Your task to perform on an android device: turn off location Image 0: 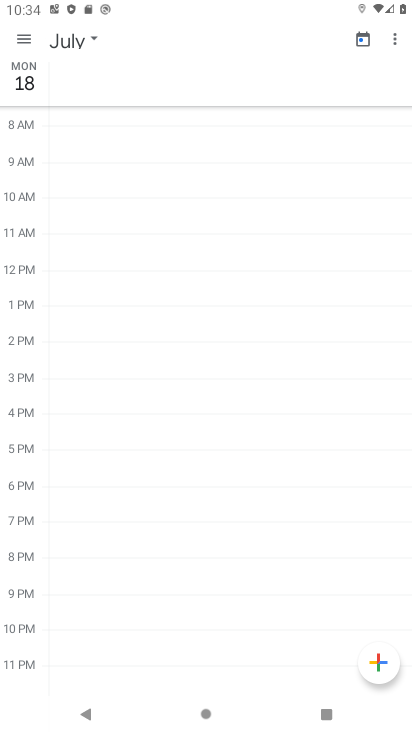
Step 0: press home button
Your task to perform on an android device: turn off location Image 1: 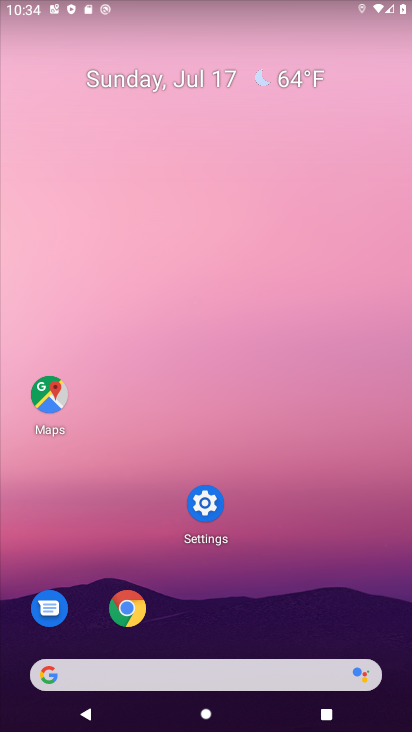
Step 1: click (209, 503)
Your task to perform on an android device: turn off location Image 2: 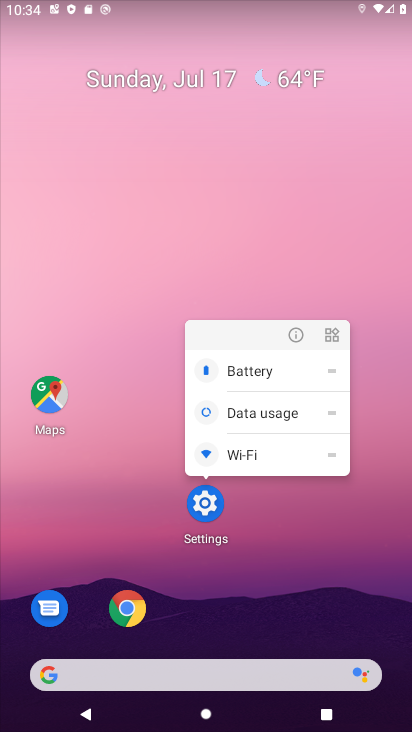
Step 2: click (215, 491)
Your task to perform on an android device: turn off location Image 3: 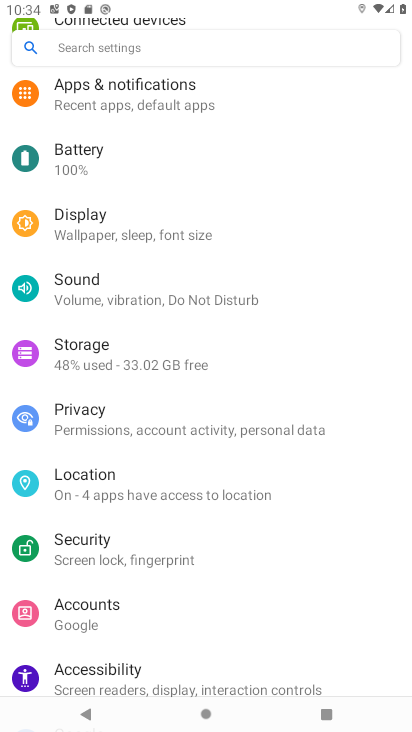
Step 3: click (133, 484)
Your task to perform on an android device: turn off location Image 4: 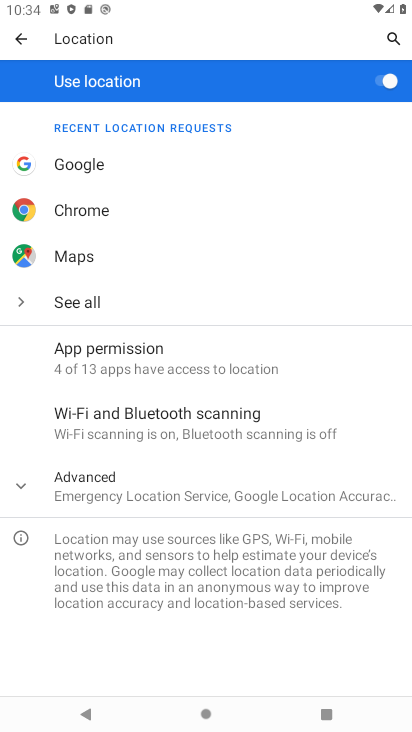
Step 4: click (378, 70)
Your task to perform on an android device: turn off location Image 5: 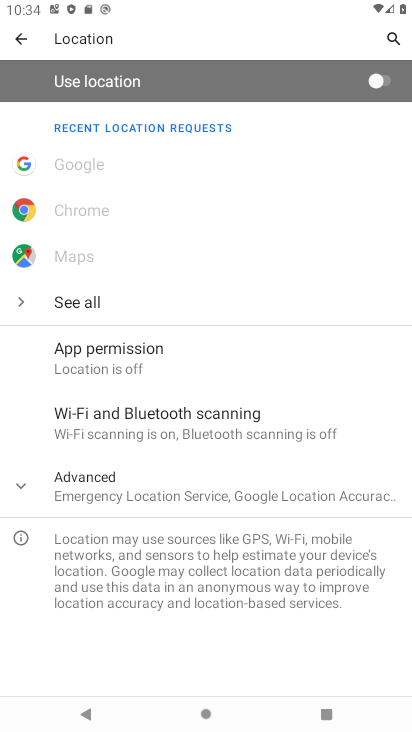
Step 5: task complete